Your task to perform on an android device: open app "Cash App" Image 0: 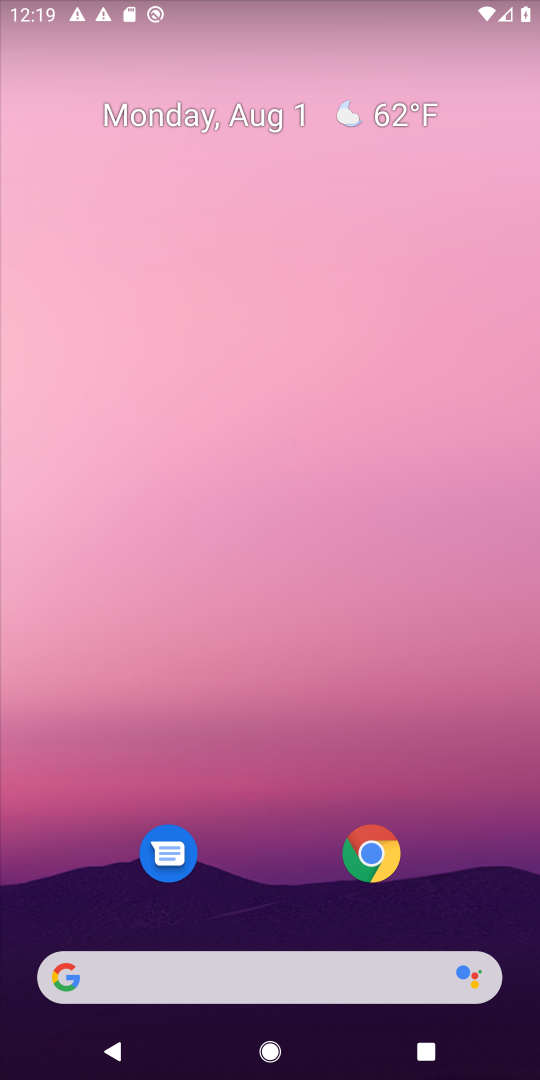
Step 0: drag from (312, 1063) to (327, 110)
Your task to perform on an android device: open app "Cash App" Image 1: 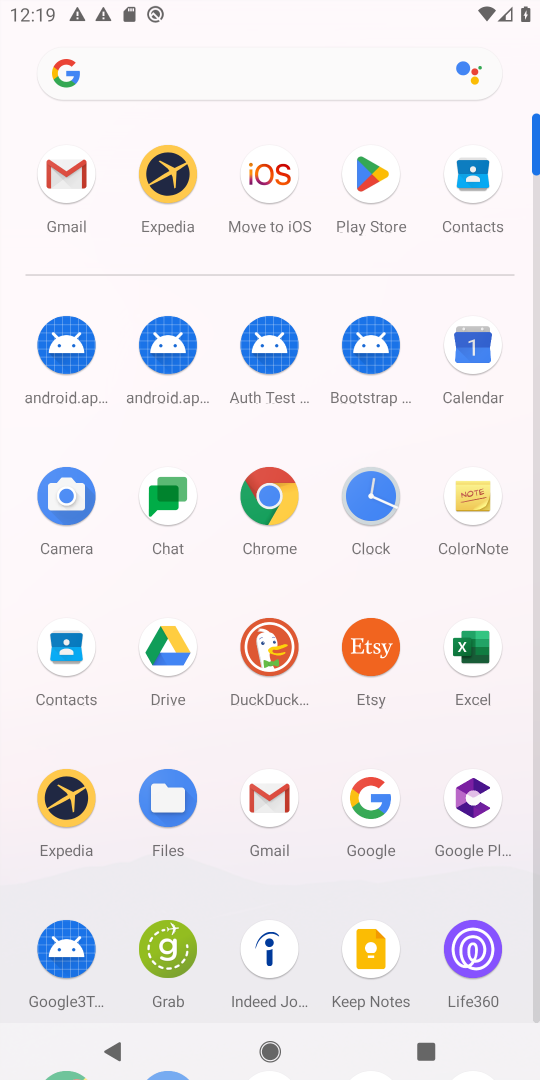
Step 1: drag from (307, 921) to (304, 386)
Your task to perform on an android device: open app "Cash App" Image 2: 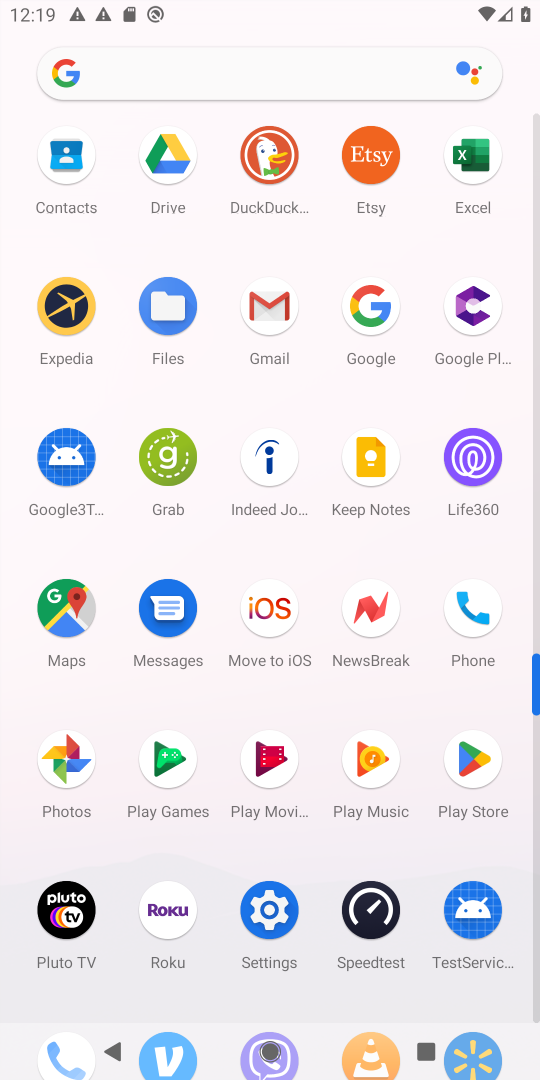
Step 2: drag from (325, 1011) to (311, 511)
Your task to perform on an android device: open app "Cash App" Image 3: 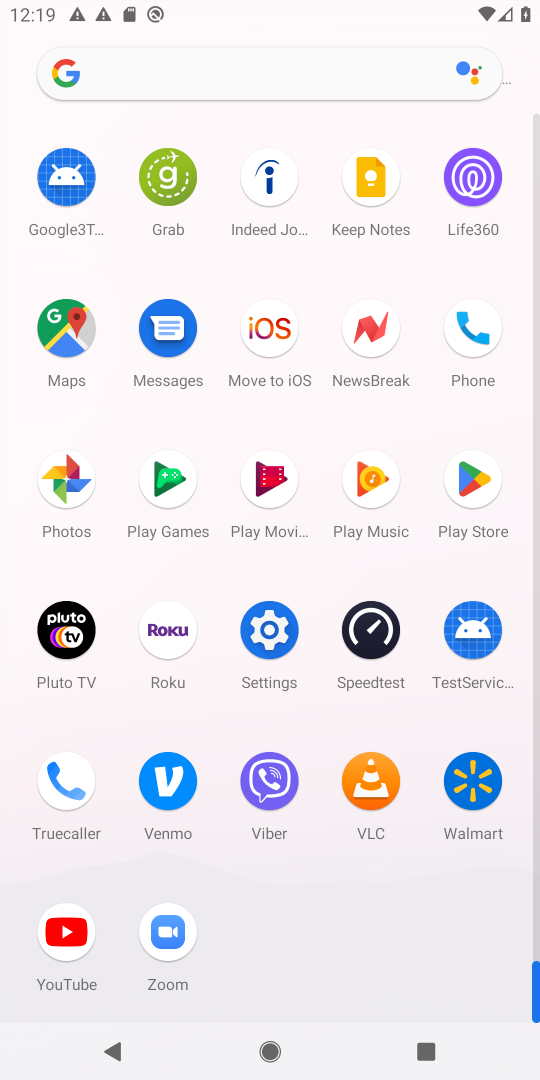
Step 3: press home button
Your task to perform on an android device: open app "Cash App" Image 4: 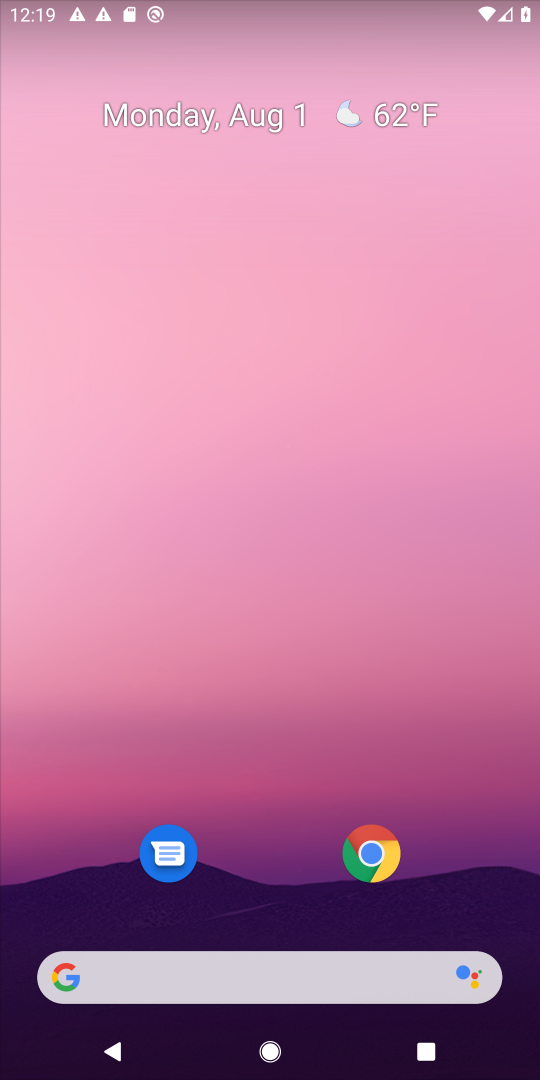
Step 4: drag from (251, 603) to (139, 589)
Your task to perform on an android device: open app "Cash App" Image 5: 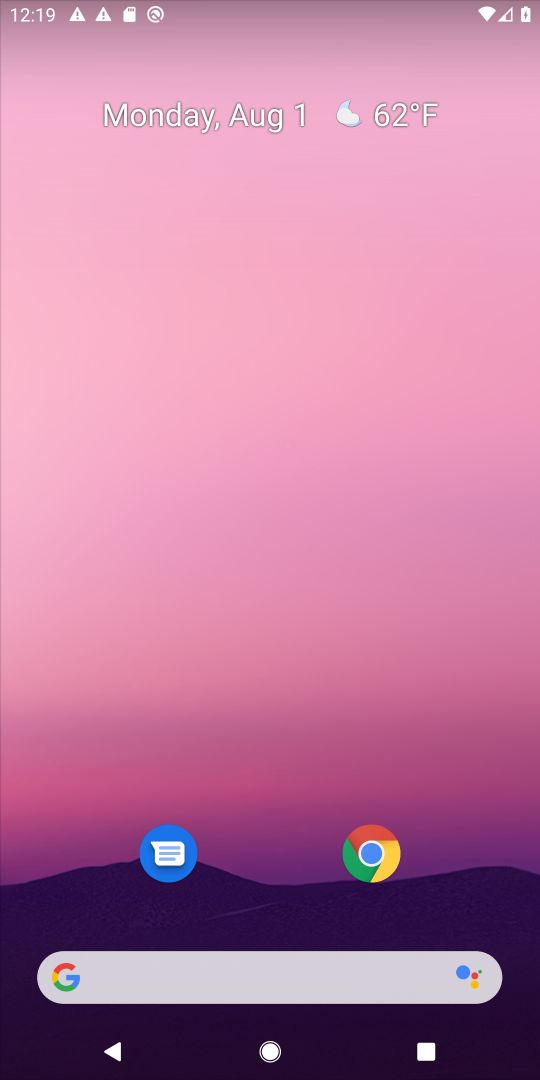
Step 5: drag from (418, 878) to (44, 857)
Your task to perform on an android device: open app "Cash App" Image 6: 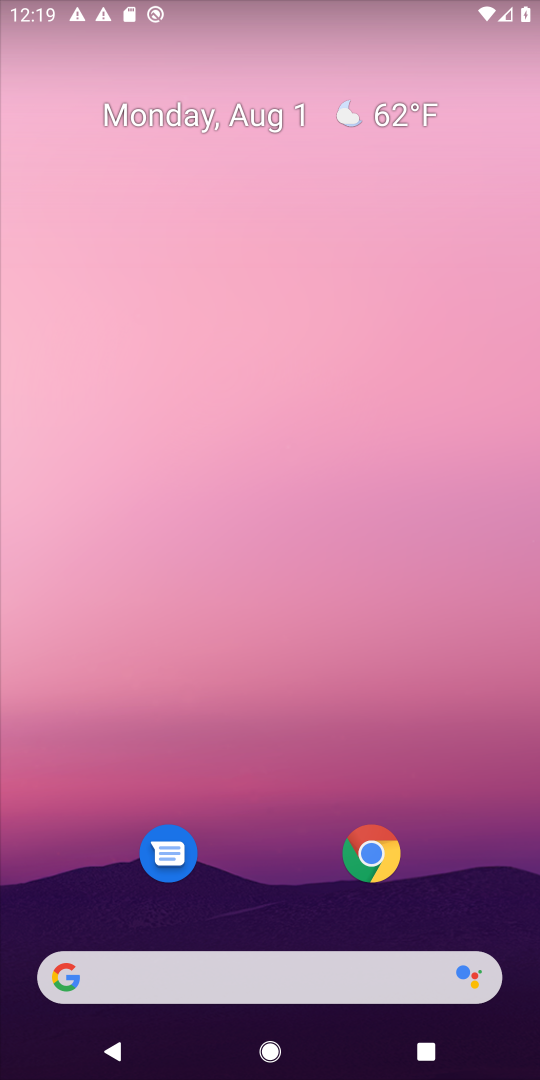
Step 6: drag from (295, 1046) to (324, 335)
Your task to perform on an android device: open app "Cash App" Image 7: 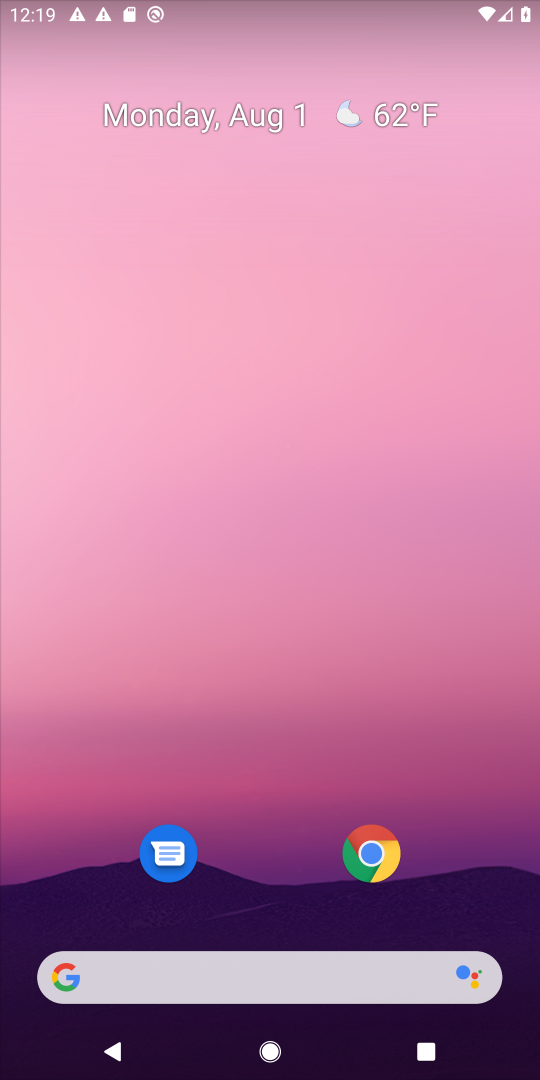
Step 7: drag from (306, 818) to (334, 115)
Your task to perform on an android device: open app "Cash App" Image 8: 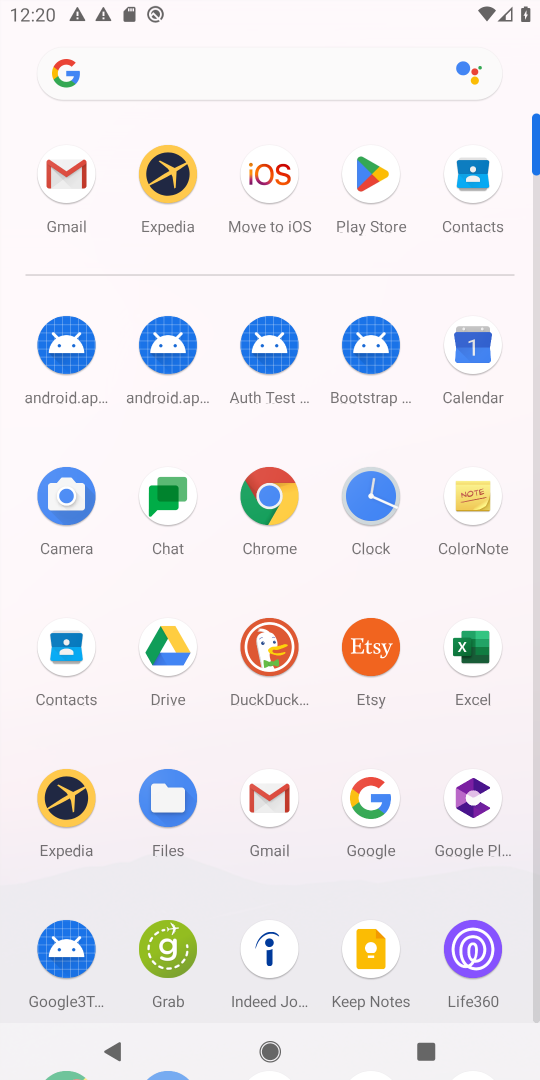
Step 8: click (371, 177)
Your task to perform on an android device: open app "Cash App" Image 9: 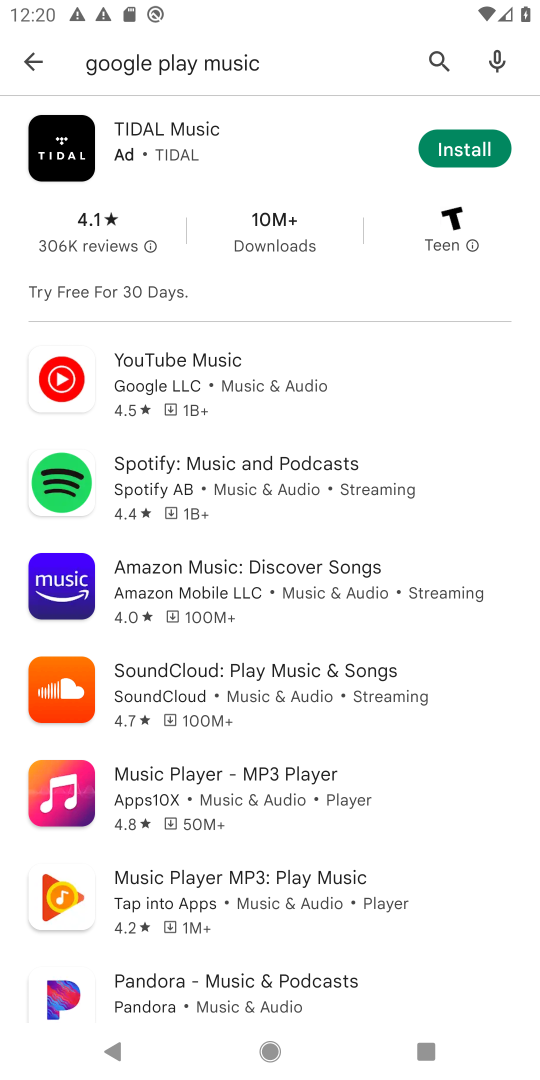
Step 9: click (438, 54)
Your task to perform on an android device: open app "Cash App" Image 10: 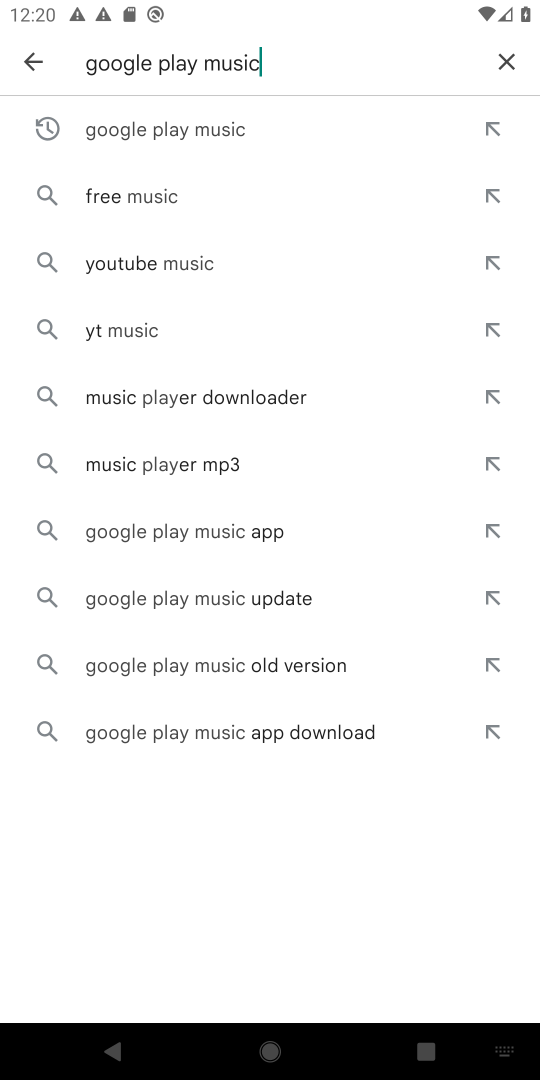
Step 10: click (503, 56)
Your task to perform on an android device: open app "Cash App" Image 11: 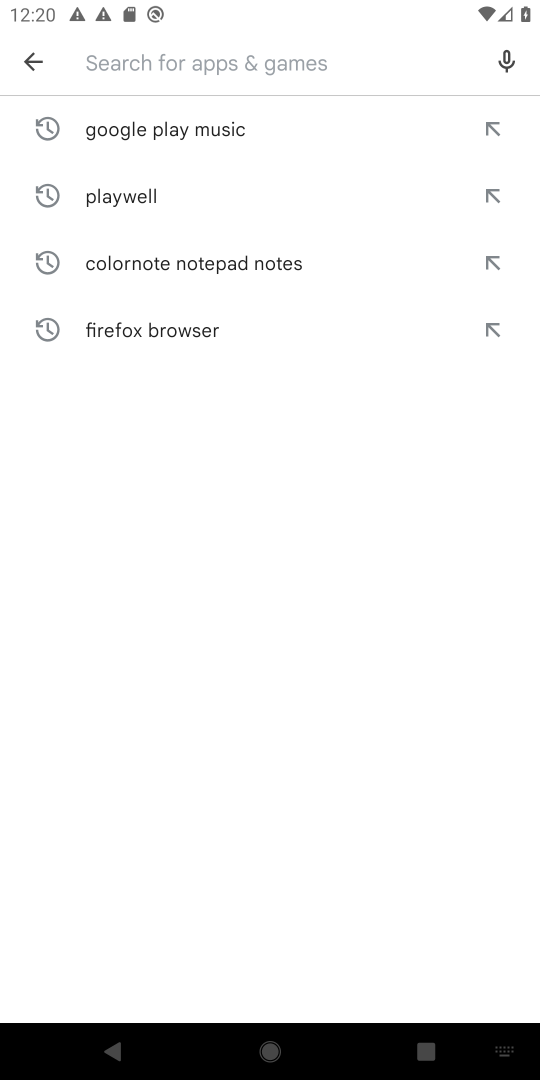
Step 11: type "CashApp"
Your task to perform on an android device: open app "Cash App" Image 12: 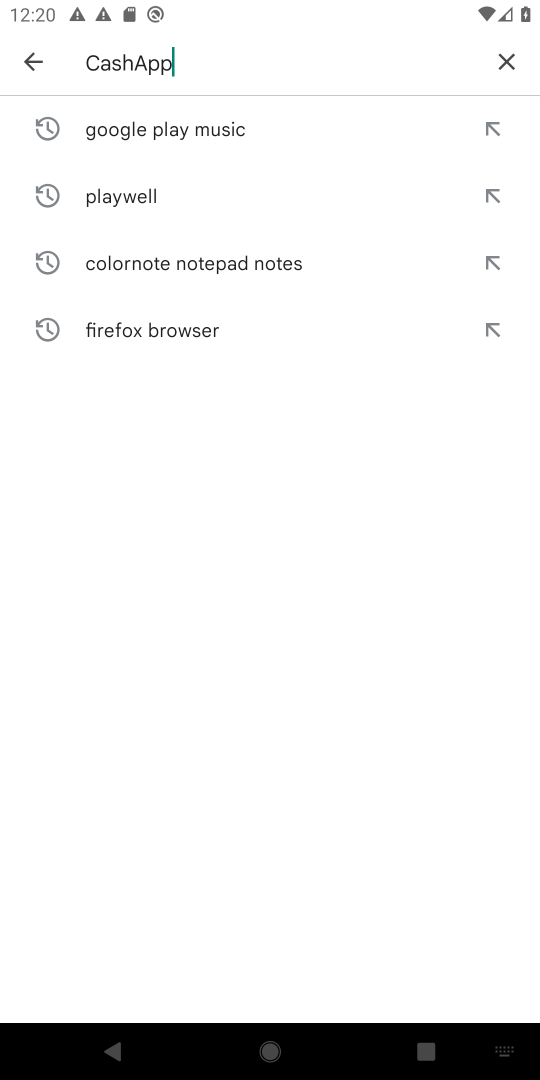
Step 12: type ""
Your task to perform on an android device: open app "Cash App" Image 13: 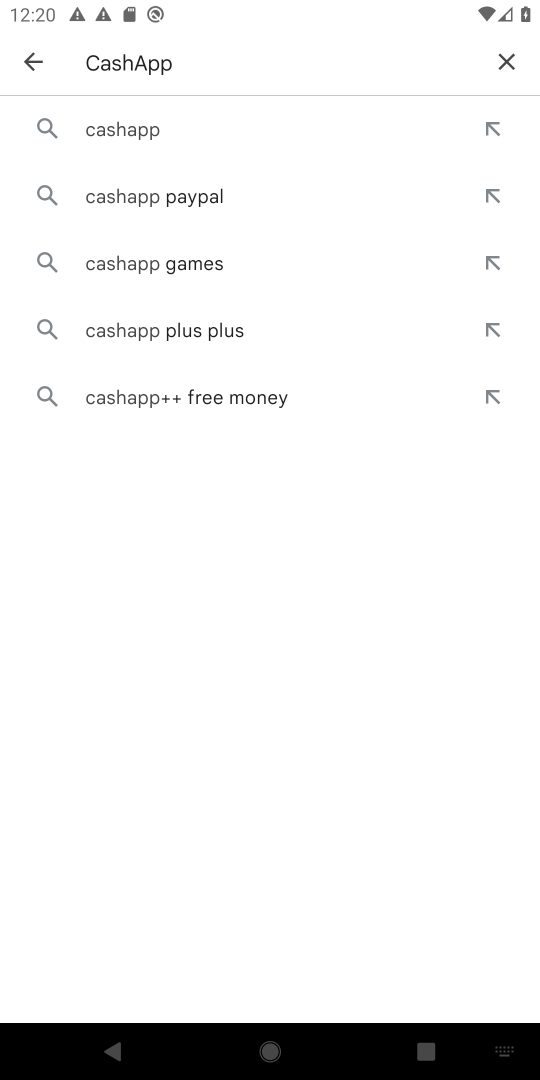
Step 13: click (131, 132)
Your task to perform on an android device: open app "Cash App" Image 14: 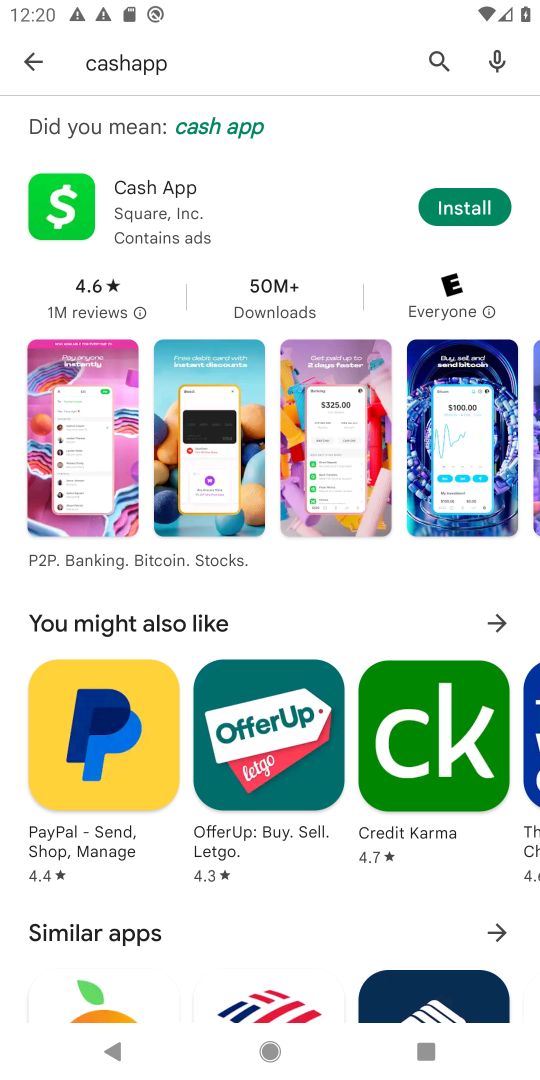
Step 14: click (161, 216)
Your task to perform on an android device: open app "Cash App" Image 15: 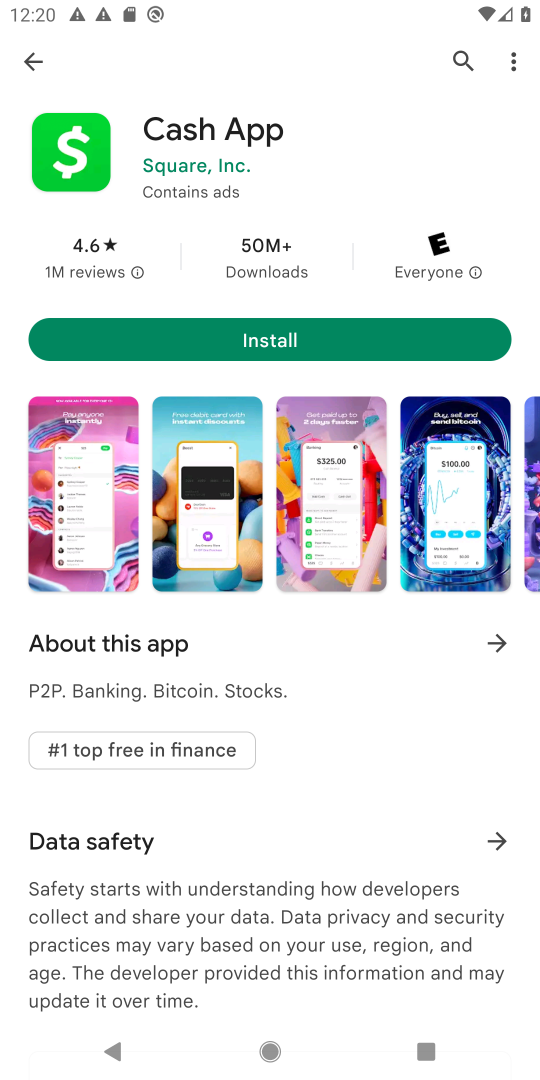
Step 15: task complete